Your task to perform on an android device: Search for vegetarian restaurants on Maps Image 0: 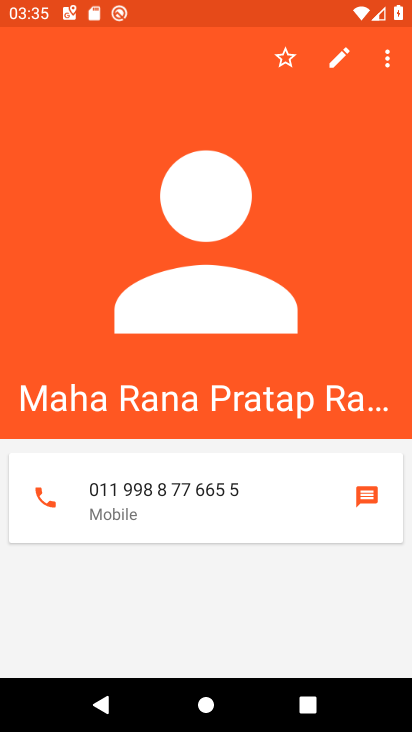
Step 0: press home button
Your task to perform on an android device: Search for vegetarian restaurants on Maps Image 1: 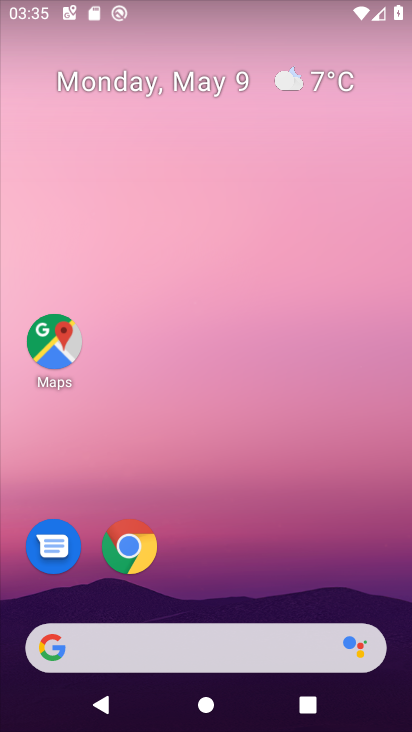
Step 1: drag from (248, 490) to (260, 19)
Your task to perform on an android device: Search for vegetarian restaurants on Maps Image 2: 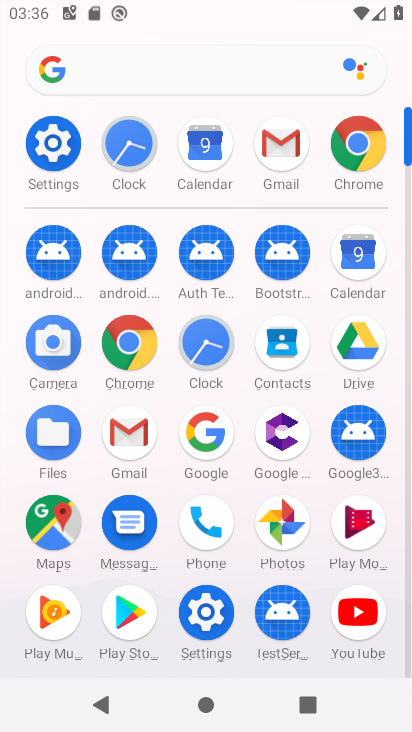
Step 2: click (38, 509)
Your task to perform on an android device: Search for vegetarian restaurants on Maps Image 3: 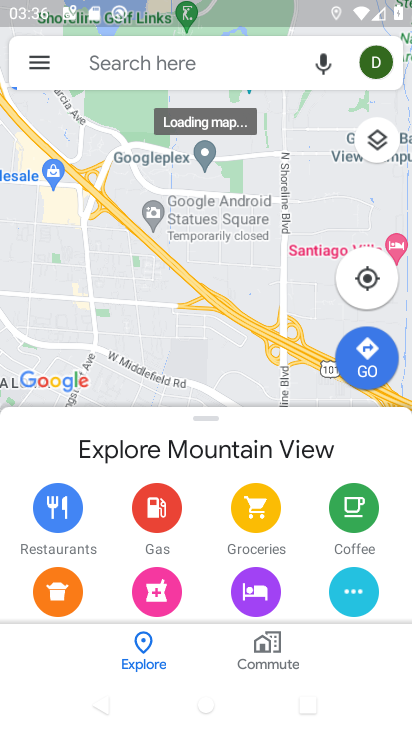
Step 3: click (88, 60)
Your task to perform on an android device: Search for vegetarian restaurants on Maps Image 4: 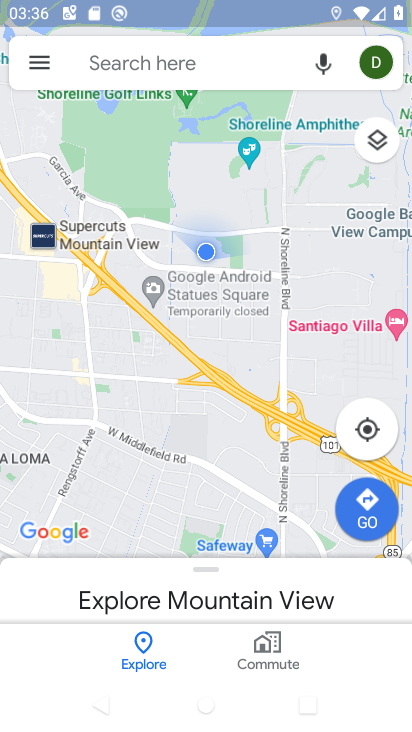
Step 4: click (180, 48)
Your task to perform on an android device: Search for vegetarian restaurants on Maps Image 5: 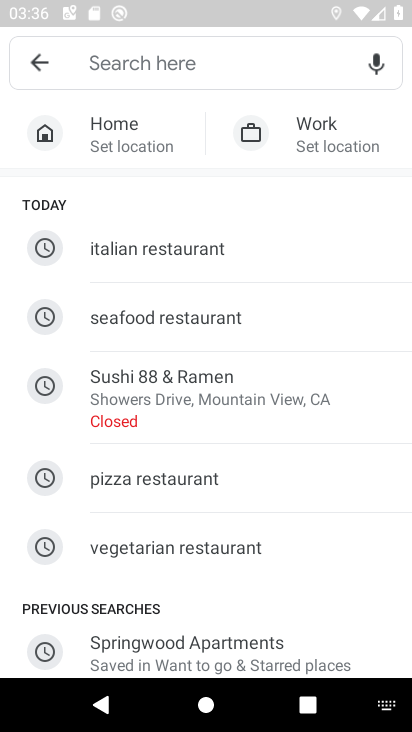
Step 5: click (230, 542)
Your task to perform on an android device: Search for vegetarian restaurants on Maps Image 6: 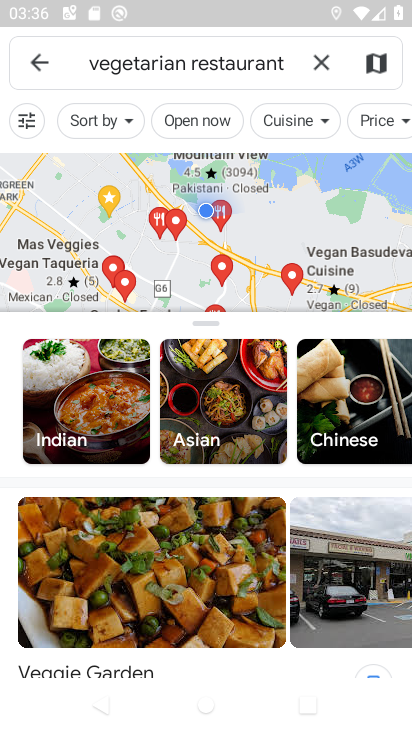
Step 6: task complete